Your task to perform on an android device: Go to ESPN.com Image 0: 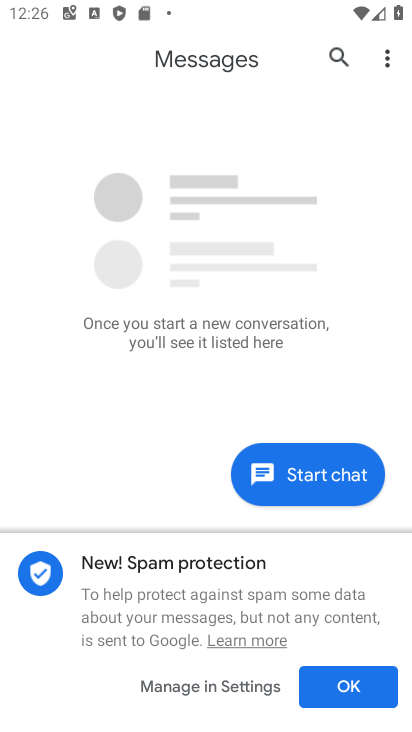
Step 0: press home button
Your task to perform on an android device: Go to ESPN.com Image 1: 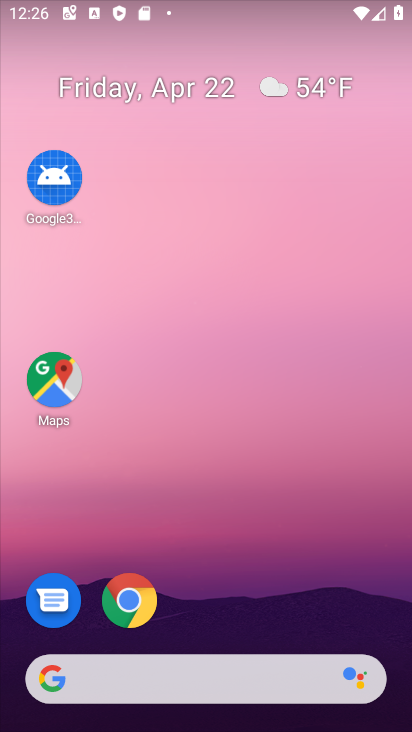
Step 1: click (143, 607)
Your task to perform on an android device: Go to ESPN.com Image 2: 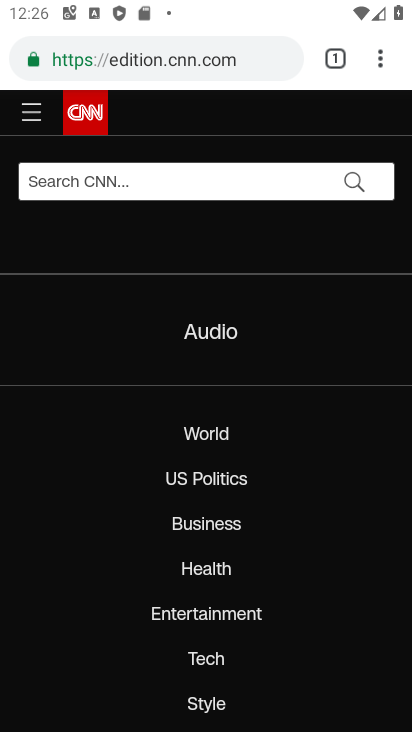
Step 2: click (331, 50)
Your task to perform on an android device: Go to ESPN.com Image 3: 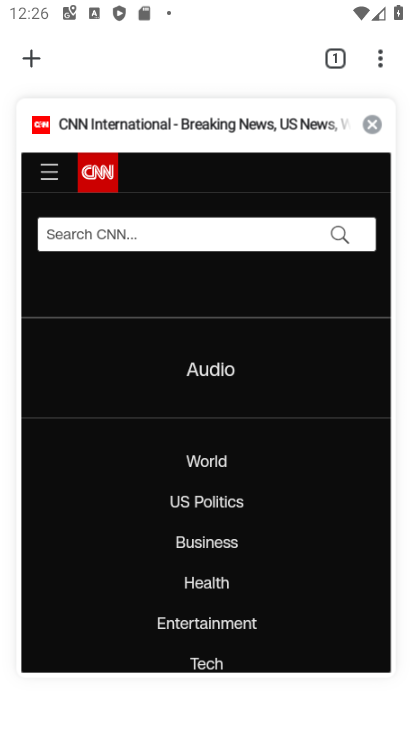
Step 3: click (36, 58)
Your task to perform on an android device: Go to ESPN.com Image 4: 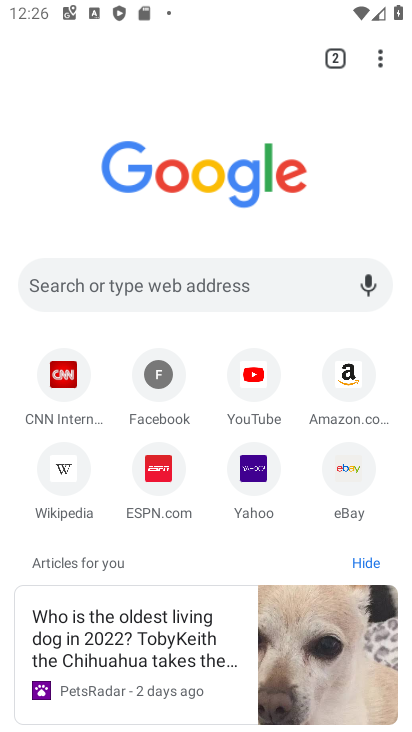
Step 4: click (154, 483)
Your task to perform on an android device: Go to ESPN.com Image 5: 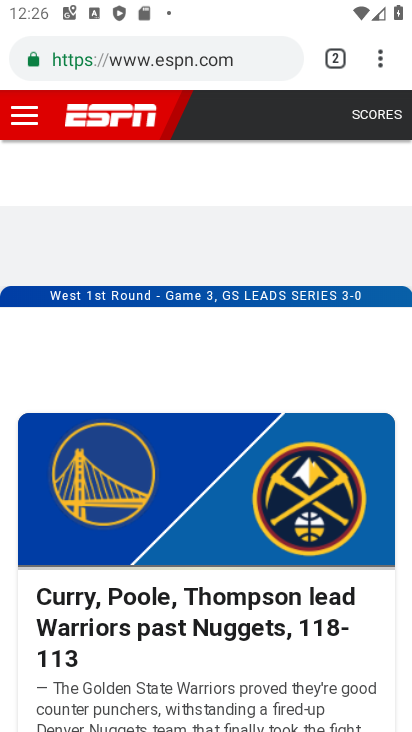
Step 5: task complete